Your task to perform on an android device: check google app version Image 0: 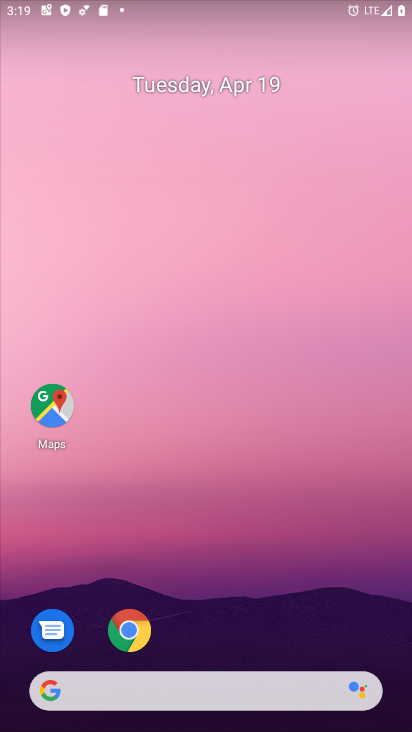
Step 0: drag from (225, 714) to (227, 121)
Your task to perform on an android device: check google app version Image 1: 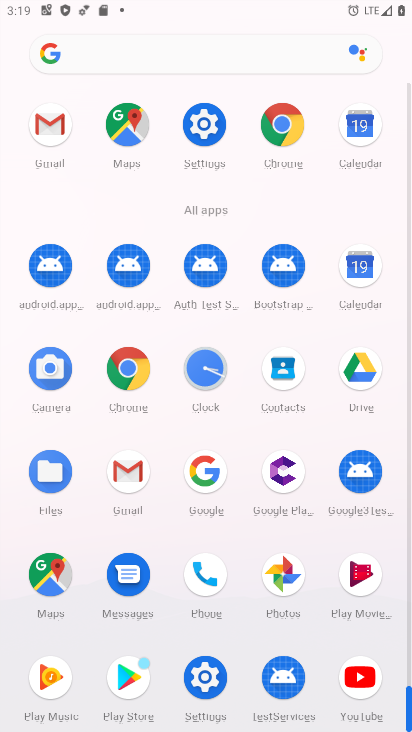
Step 1: click (207, 472)
Your task to perform on an android device: check google app version Image 2: 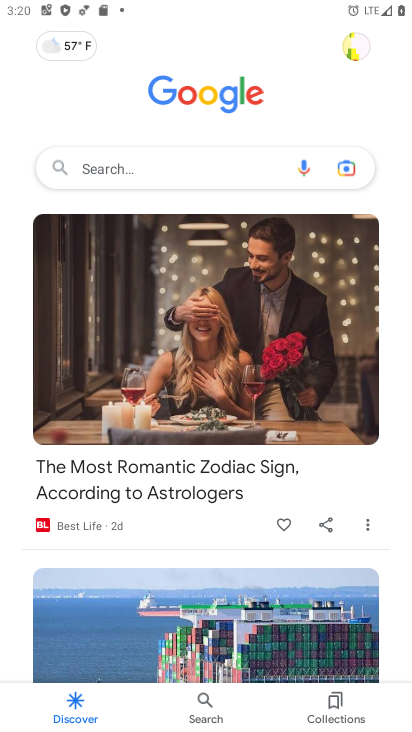
Step 2: click (376, 51)
Your task to perform on an android device: check google app version Image 3: 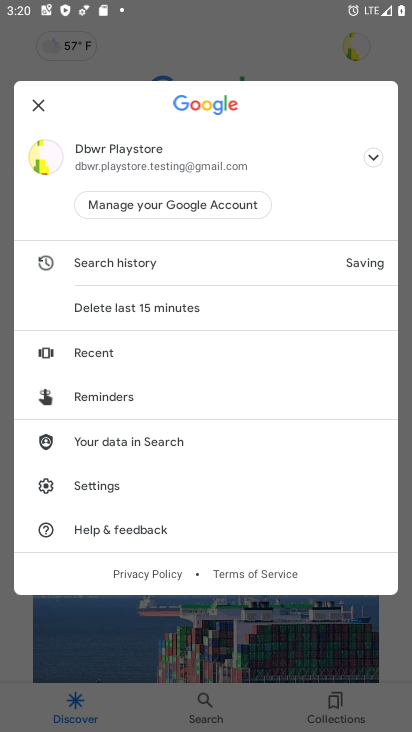
Step 3: click (87, 484)
Your task to perform on an android device: check google app version Image 4: 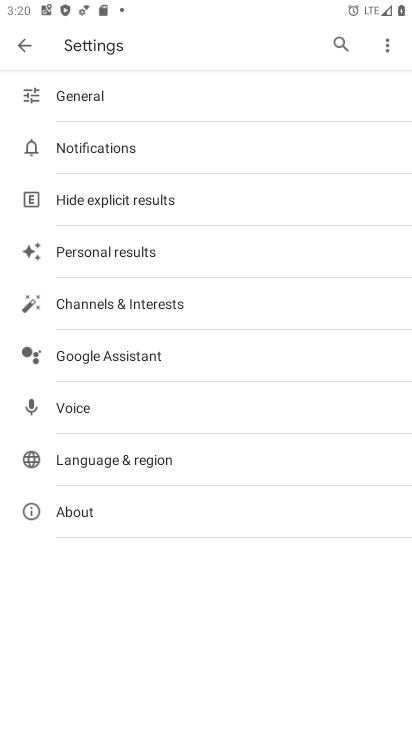
Step 4: click (81, 509)
Your task to perform on an android device: check google app version Image 5: 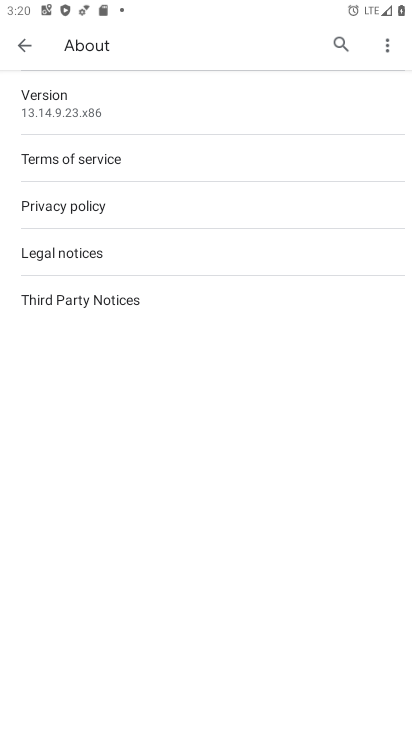
Step 5: task complete